Your task to perform on an android device: Do I have any events this weekend? Image 0: 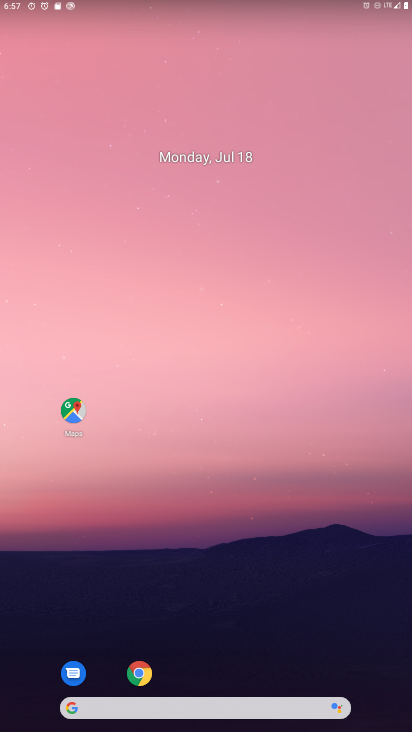
Step 0: drag from (275, 568) to (275, 277)
Your task to perform on an android device: Do I have any events this weekend? Image 1: 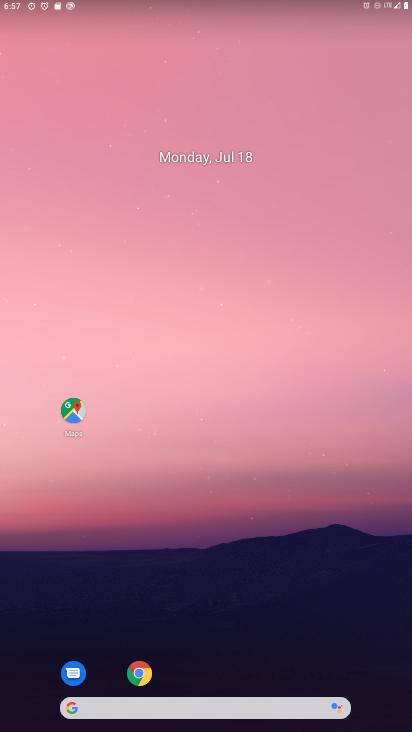
Step 1: drag from (255, 591) to (281, 190)
Your task to perform on an android device: Do I have any events this weekend? Image 2: 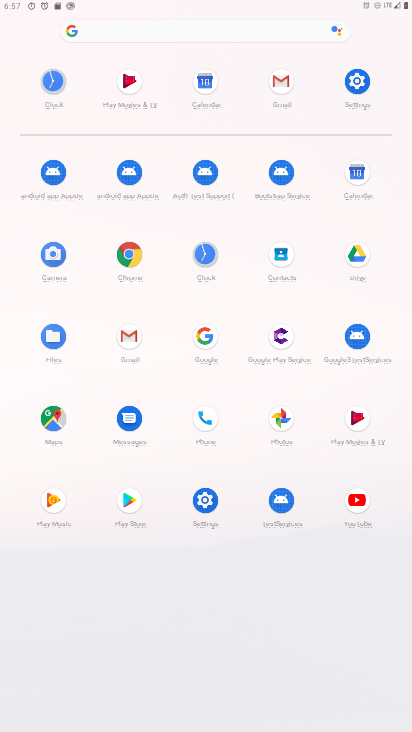
Step 2: click (354, 171)
Your task to perform on an android device: Do I have any events this weekend? Image 3: 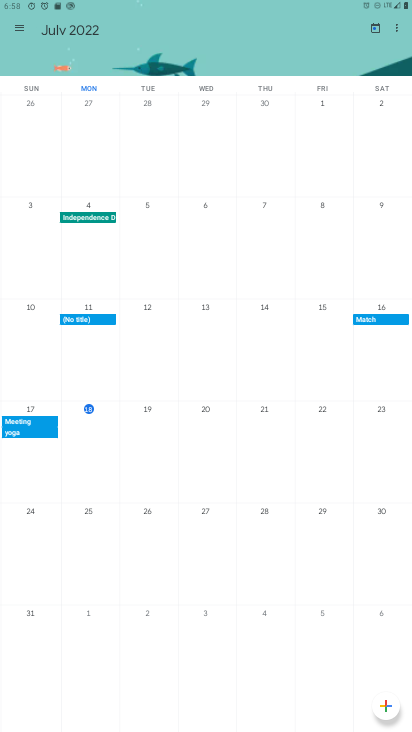
Step 3: task complete